Your task to perform on an android device: What is the recent news? Image 0: 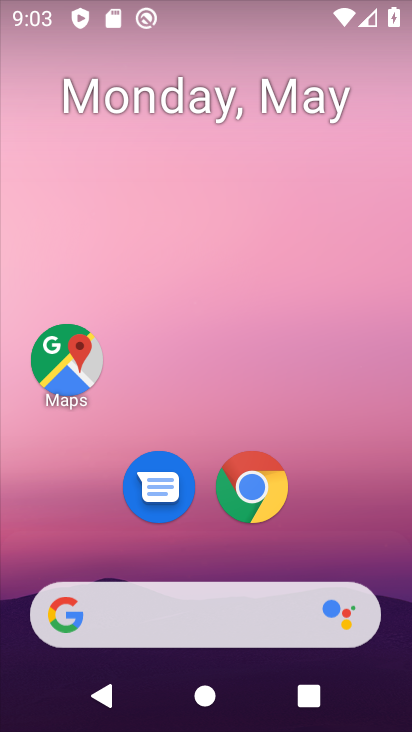
Step 0: drag from (349, 493) to (383, 213)
Your task to perform on an android device: What is the recent news? Image 1: 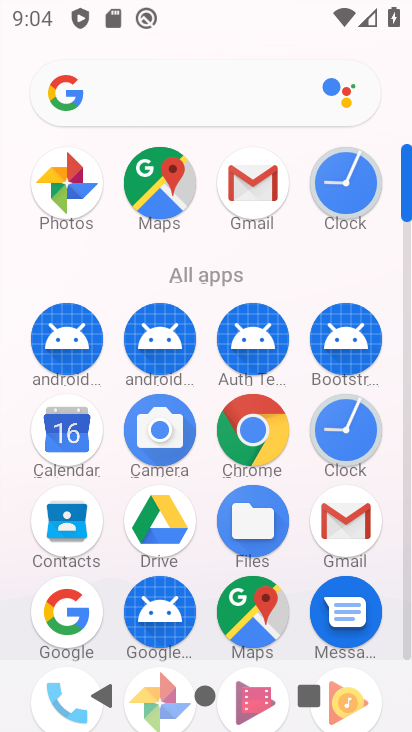
Step 1: click (257, 426)
Your task to perform on an android device: What is the recent news? Image 2: 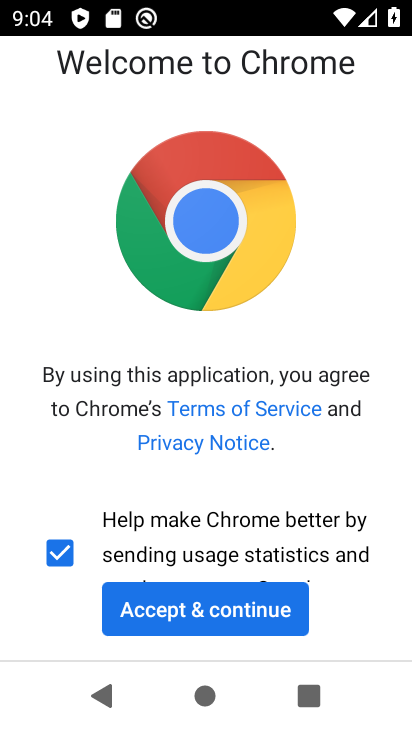
Step 2: click (211, 595)
Your task to perform on an android device: What is the recent news? Image 3: 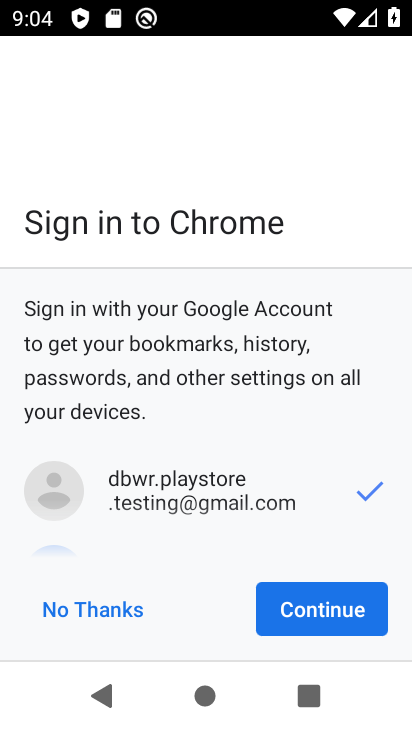
Step 3: click (286, 597)
Your task to perform on an android device: What is the recent news? Image 4: 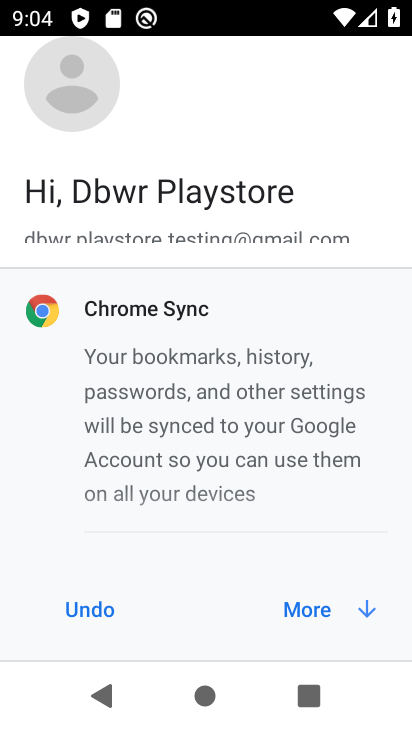
Step 4: click (295, 617)
Your task to perform on an android device: What is the recent news? Image 5: 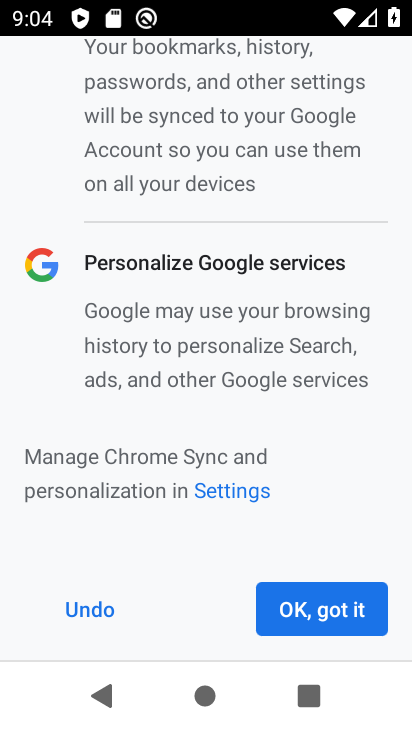
Step 5: click (297, 611)
Your task to perform on an android device: What is the recent news? Image 6: 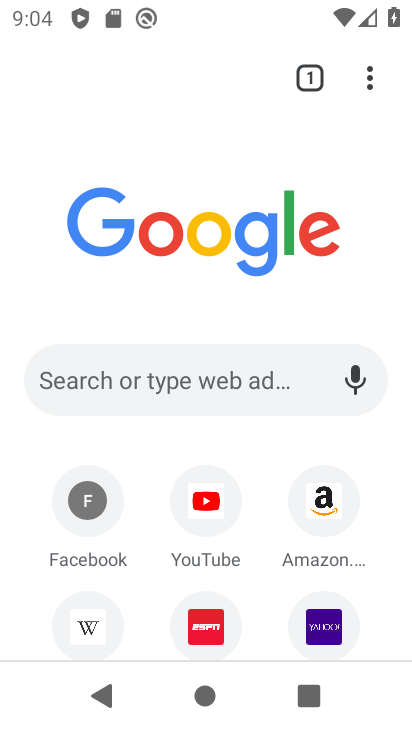
Step 6: click (183, 365)
Your task to perform on an android device: What is the recent news? Image 7: 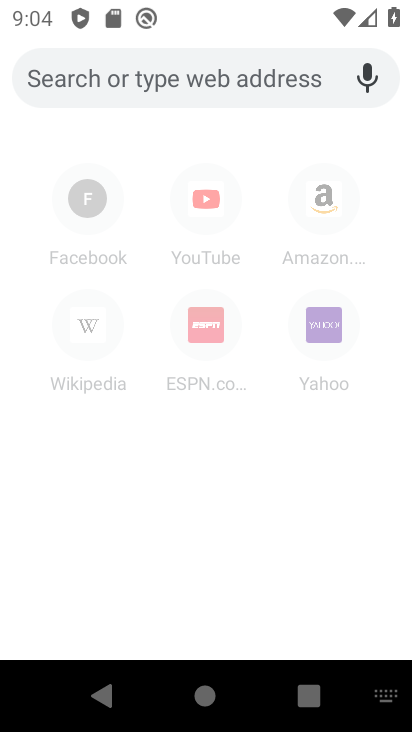
Step 7: type "What is the recent news?"
Your task to perform on an android device: What is the recent news? Image 8: 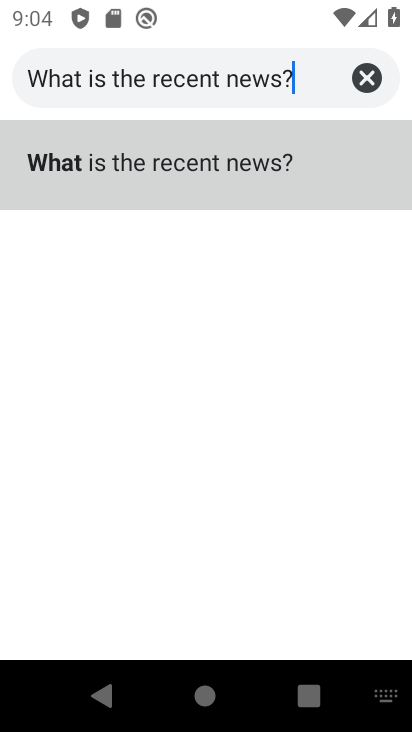
Step 8: click (235, 146)
Your task to perform on an android device: What is the recent news? Image 9: 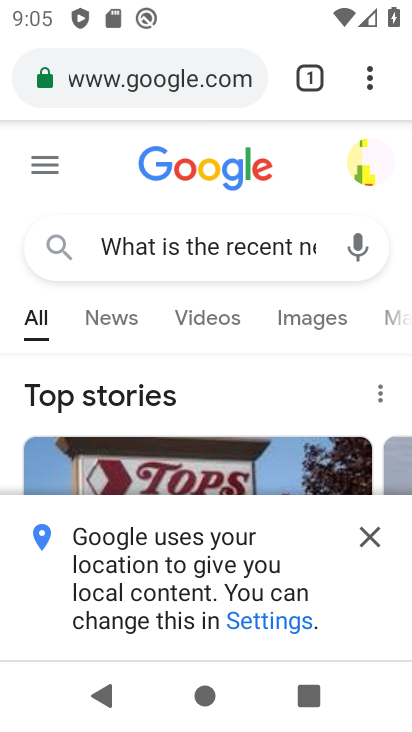
Step 9: task complete